Your task to perform on an android device: find snoozed emails in the gmail app Image 0: 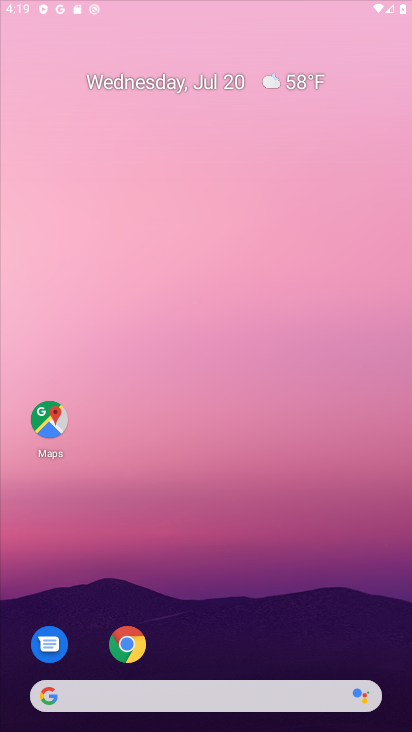
Step 0: press home button
Your task to perform on an android device: find snoozed emails in the gmail app Image 1: 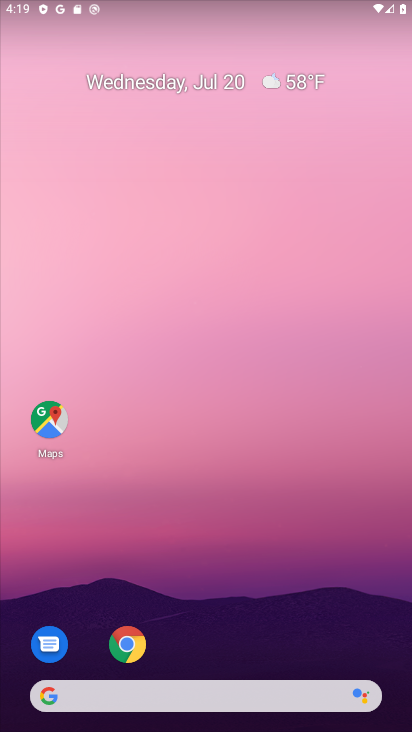
Step 1: drag from (282, 637) to (283, 148)
Your task to perform on an android device: find snoozed emails in the gmail app Image 2: 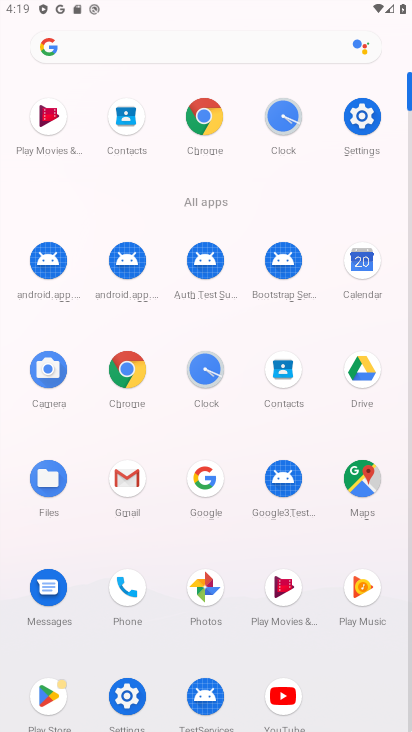
Step 2: click (123, 489)
Your task to perform on an android device: find snoozed emails in the gmail app Image 3: 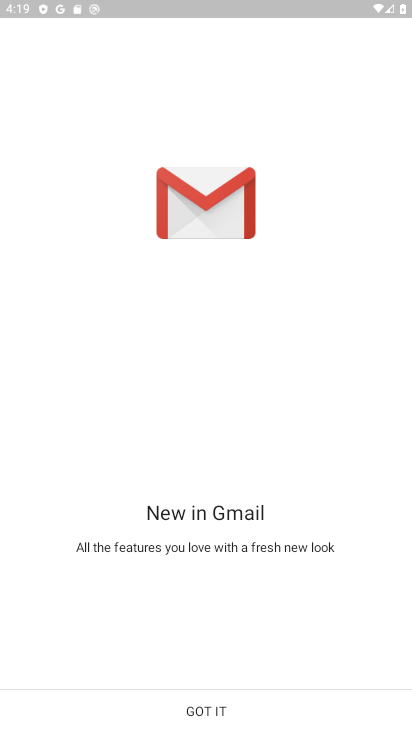
Step 3: click (197, 712)
Your task to perform on an android device: find snoozed emails in the gmail app Image 4: 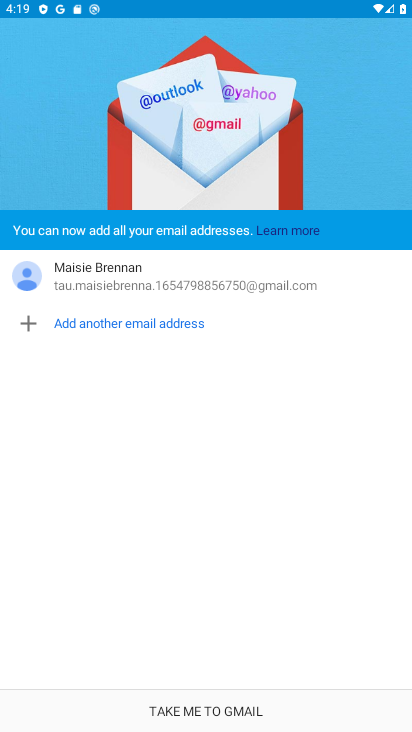
Step 4: click (197, 712)
Your task to perform on an android device: find snoozed emails in the gmail app Image 5: 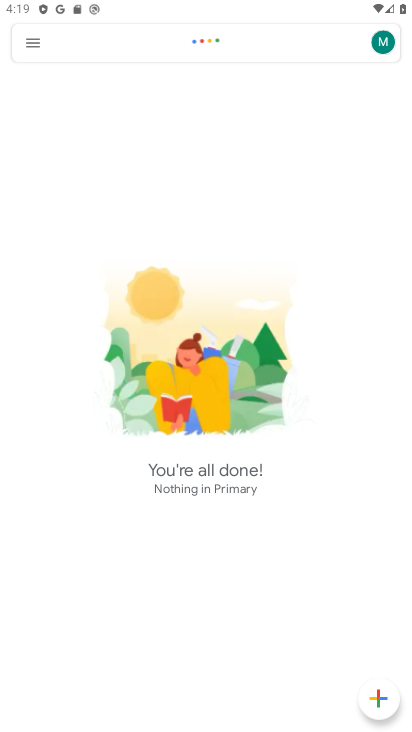
Step 5: click (39, 54)
Your task to perform on an android device: find snoozed emails in the gmail app Image 6: 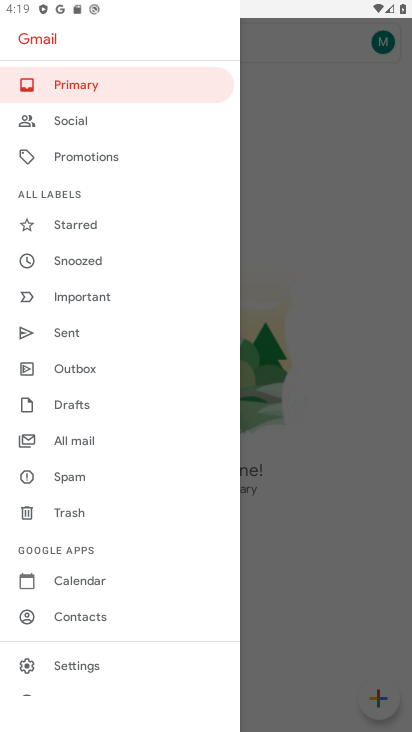
Step 6: click (74, 266)
Your task to perform on an android device: find snoozed emails in the gmail app Image 7: 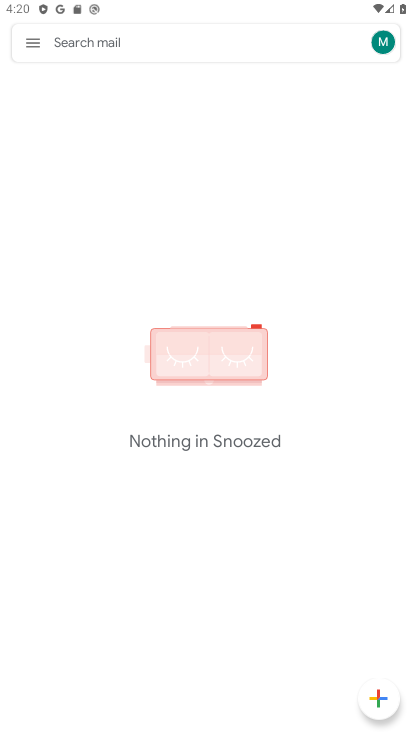
Step 7: task complete